Your task to perform on an android device: check out phone information Image 0: 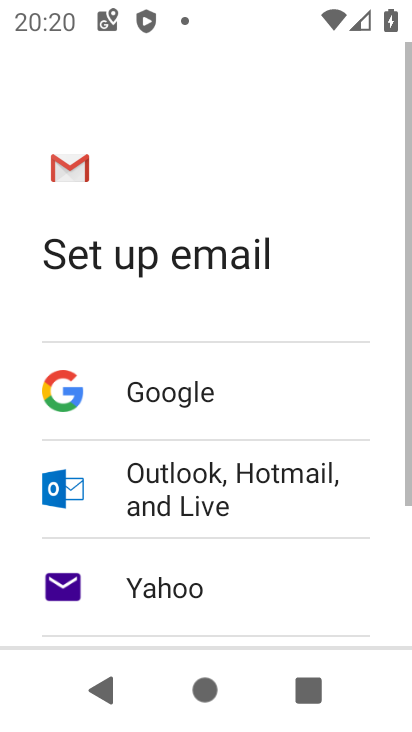
Step 0: press home button
Your task to perform on an android device: check out phone information Image 1: 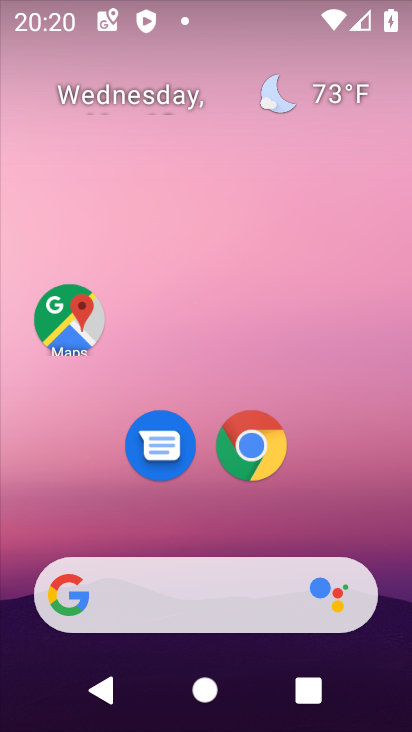
Step 1: drag from (356, 562) to (278, 217)
Your task to perform on an android device: check out phone information Image 2: 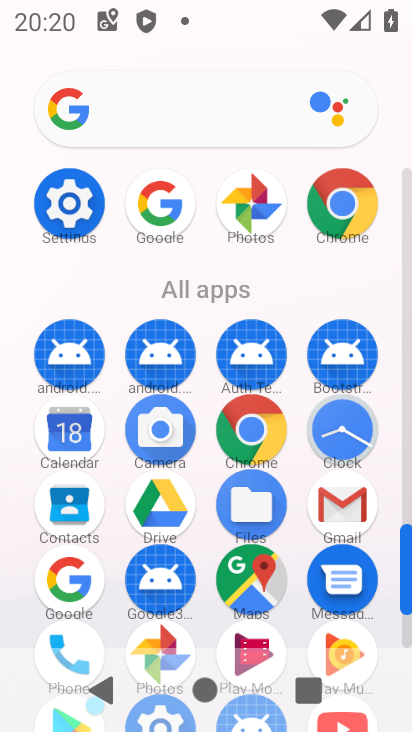
Step 2: drag from (234, 662) to (230, 427)
Your task to perform on an android device: check out phone information Image 3: 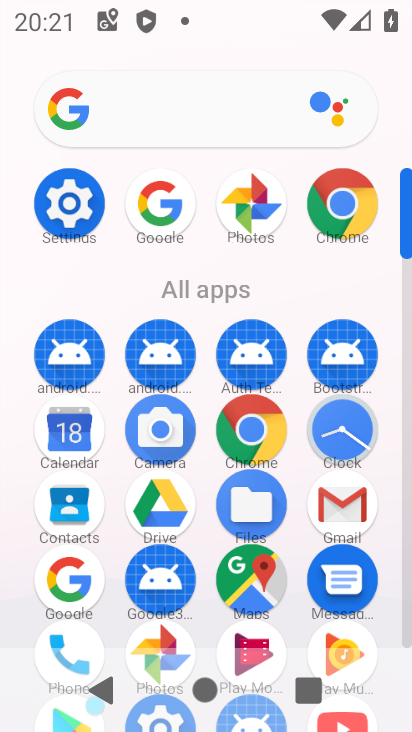
Step 3: click (61, 207)
Your task to perform on an android device: check out phone information Image 4: 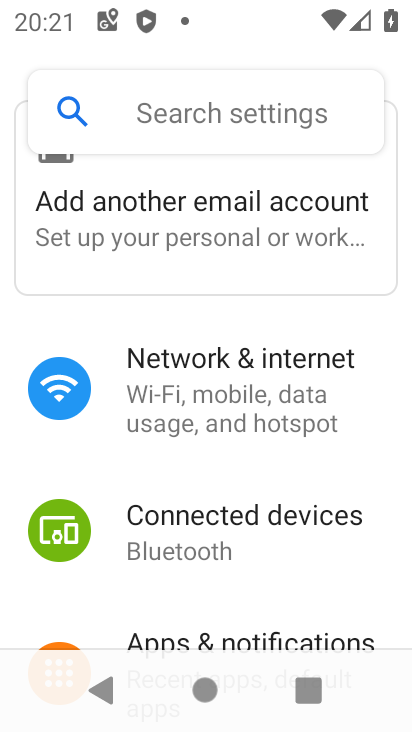
Step 4: drag from (186, 590) to (243, 123)
Your task to perform on an android device: check out phone information Image 5: 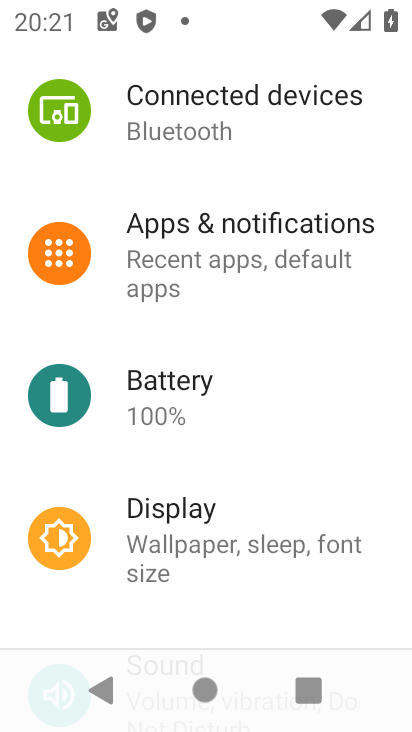
Step 5: drag from (247, 560) to (302, 84)
Your task to perform on an android device: check out phone information Image 6: 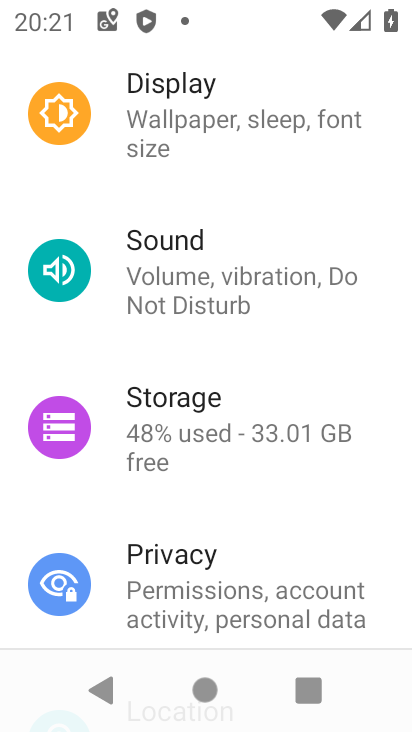
Step 6: drag from (255, 581) to (276, 125)
Your task to perform on an android device: check out phone information Image 7: 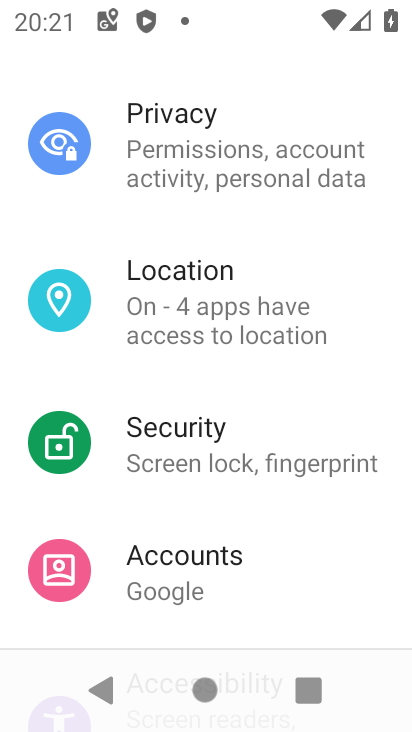
Step 7: drag from (185, 613) to (271, 157)
Your task to perform on an android device: check out phone information Image 8: 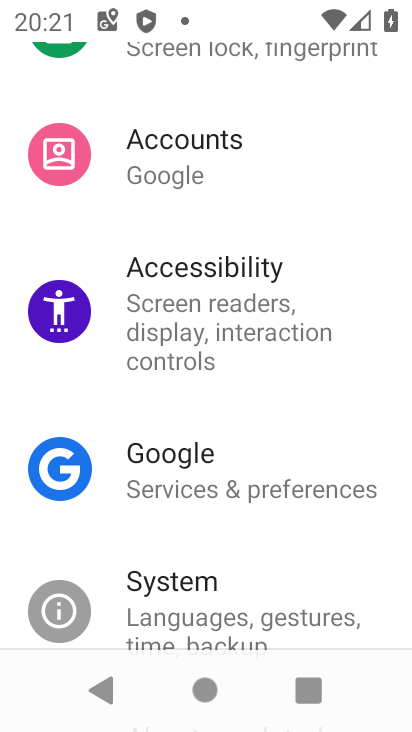
Step 8: drag from (196, 597) to (258, 180)
Your task to perform on an android device: check out phone information Image 9: 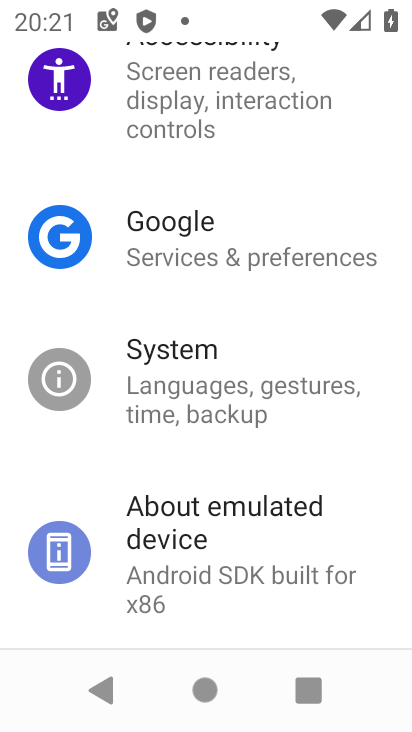
Step 9: click (200, 564)
Your task to perform on an android device: check out phone information Image 10: 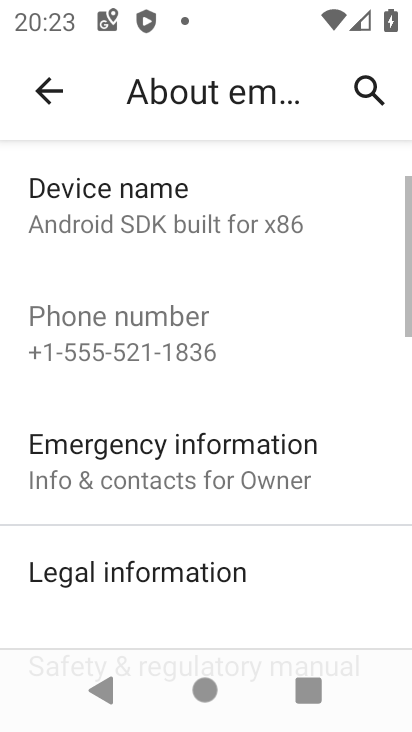
Step 10: task complete